Your task to perform on an android device: Go to Android settings Image 0: 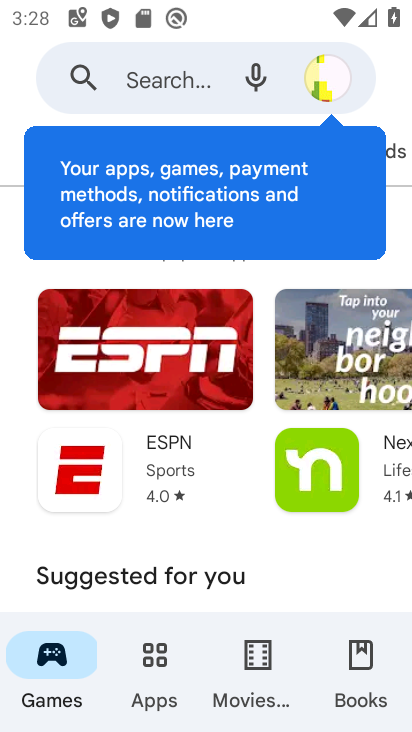
Step 0: press home button
Your task to perform on an android device: Go to Android settings Image 1: 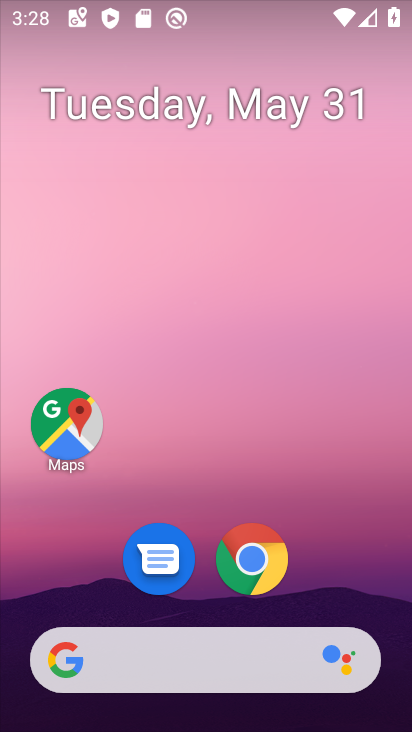
Step 1: drag from (216, 704) to (217, 238)
Your task to perform on an android device: Go to Android settings Image 2: 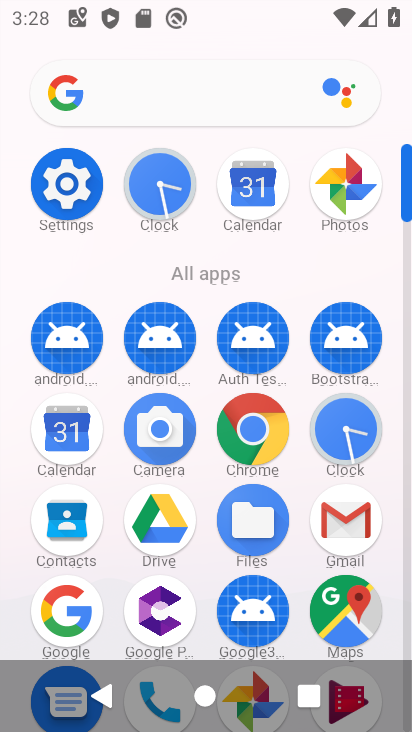
Step 2: click (58, 186)
Your task to perform on an android device: Go to Android settings Image 3: 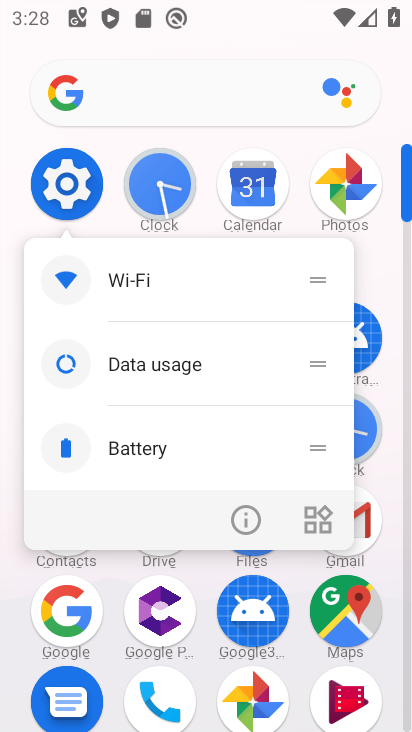
Step 3: click (60, 186)
Your task to perform on an android device: Go to Android settings Image 4: 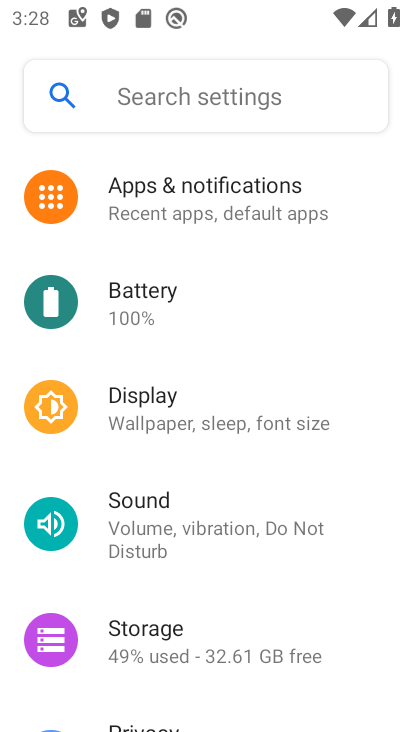
Step 4: task complete